Your task to perform on an android device: open wifi settings Image 0: 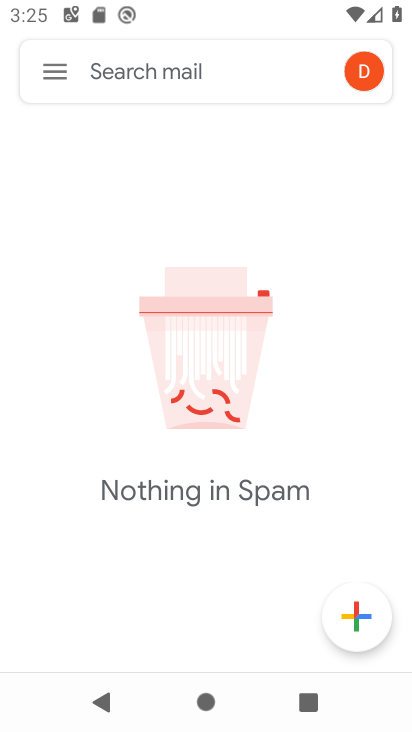
Step 0: press home button
Your task to perform on an android device: open wifi settings Image 1: 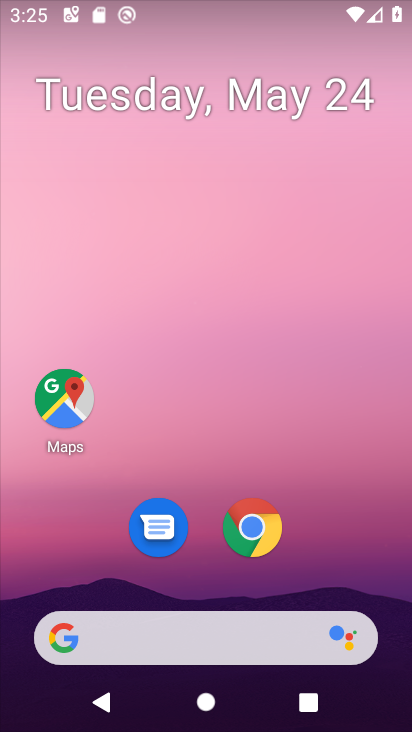
Step 1: drag from (346, 598) to (322, 5)
Your task to perform on an android device: open wifi settings Image 2: 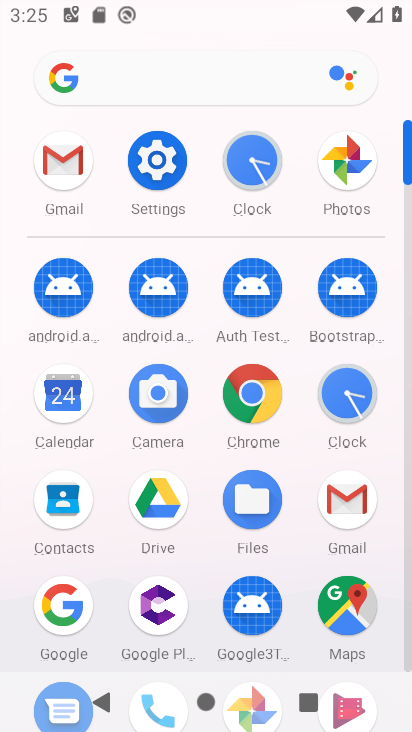
Step 2: click (156, 166)
Your task to perform on an android device: open wifi settings Image 3: 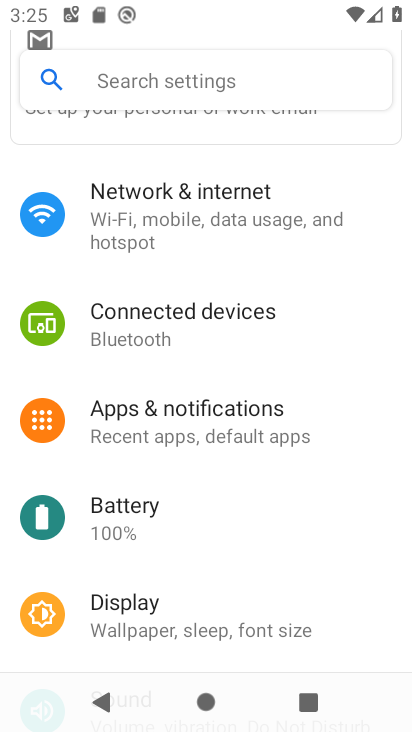
Step 3: click (167, 205)
Your task to perform on an android device: open wifi settings Image 4: 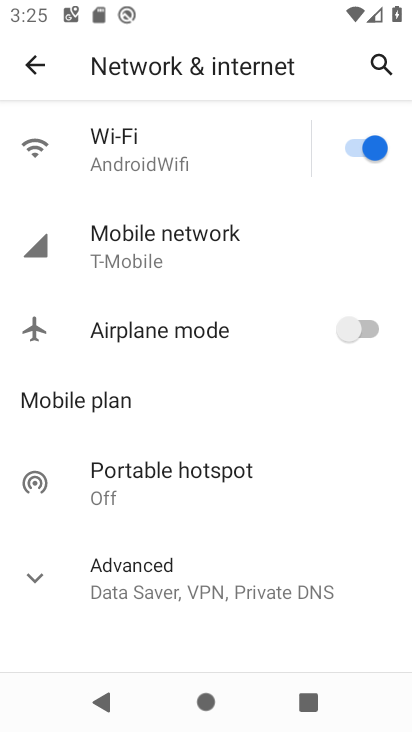
Step 4: click (101, 153)
Your task to perform on an android device: open wifi settings Image 5: 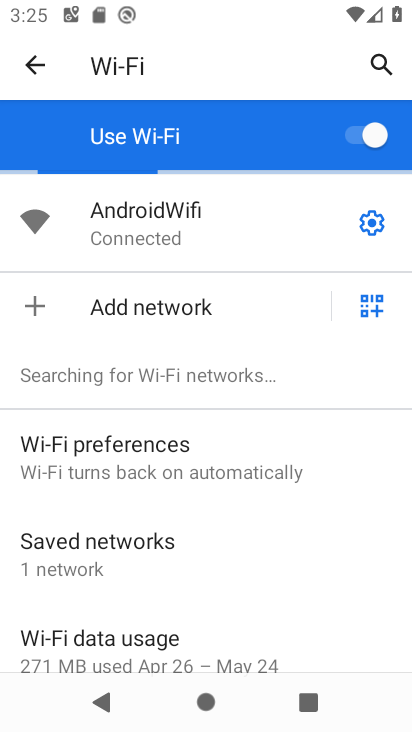
Step 5: task complete